Your task to perform on an android device: Go to Yahoo.com Image 0: 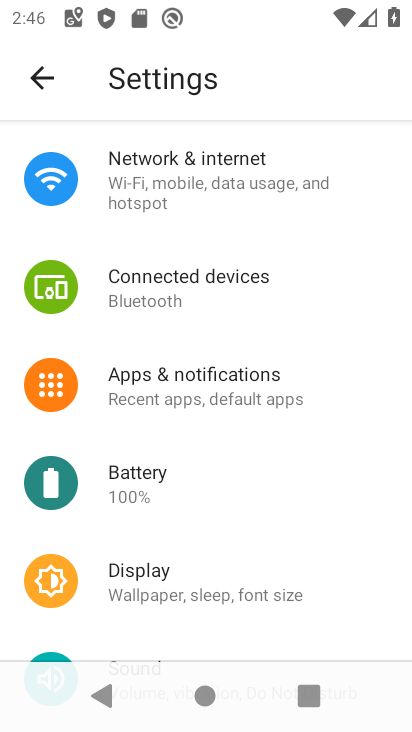
Step 0: press home button
Your task to perform on an android device: Go to Yahoo.com Image 1: 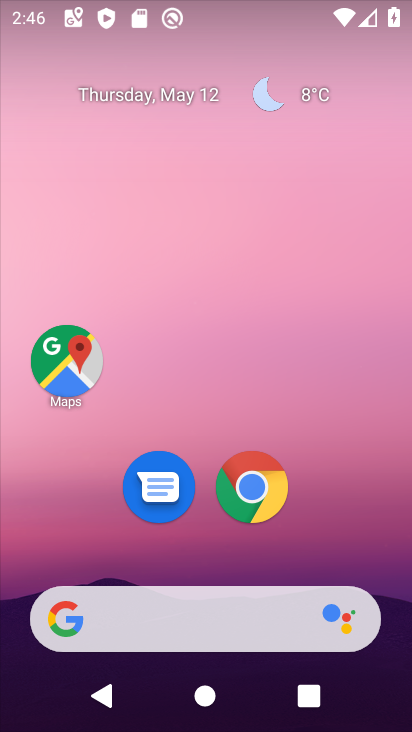
Step 1: click (251, 484)
Your task to perform on an android device: Go to Yahoo.com Image 2: 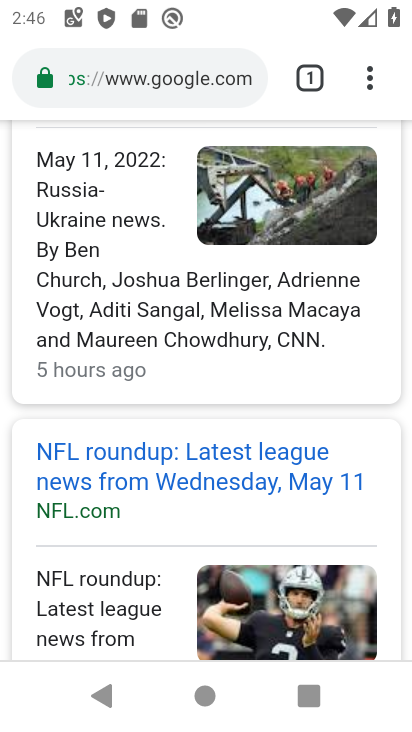
Step 2: click (191, 74)
Your task to perform on an android device: Go to Yahoo.com Image 3: 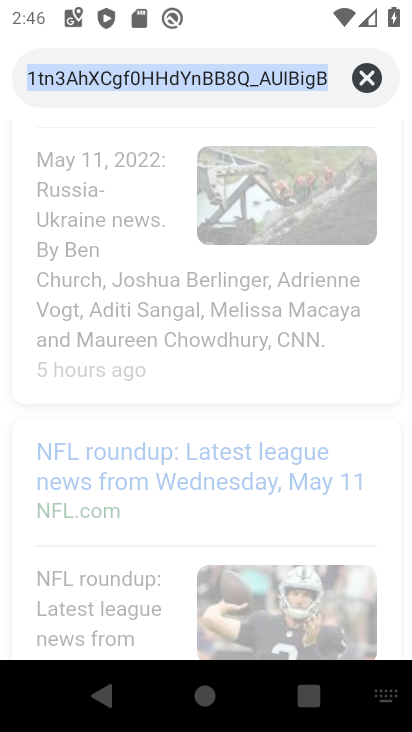
Step 3: type "yahoo.com"
Your task to perform on an android device: Go to Yahoo.com Image 4: 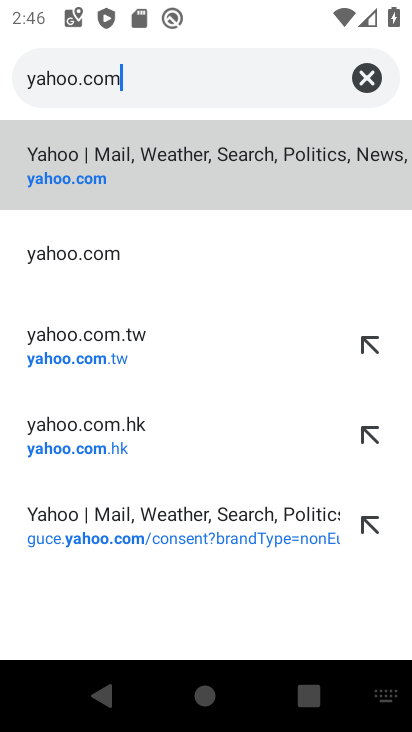
Step 4: click (99, 172)
Your task to perform on an android device: Go to Yahoo.com Image 5: 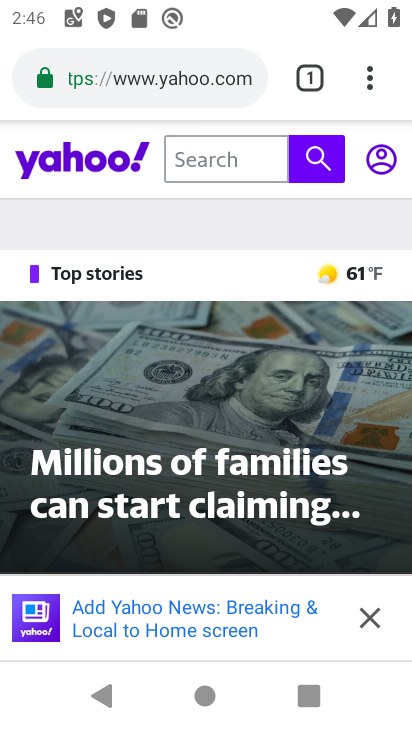
Step 5: task complete